Your task to perform on an android device: Open Google Image 0: 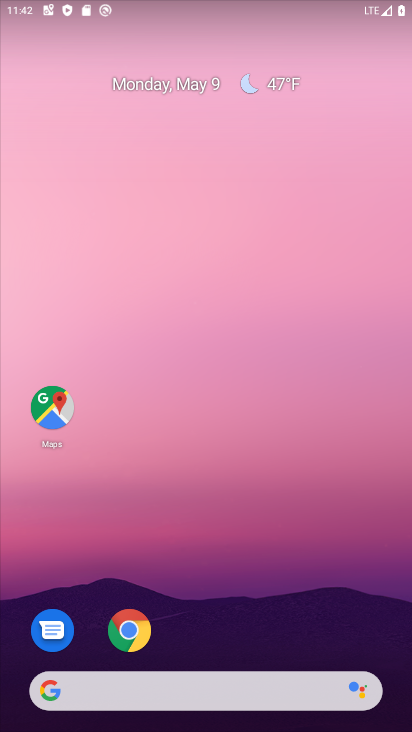
Step 0: drag from (179, 645) to (289, 150)
Your task to perform on an android device: Open Google Image 1: 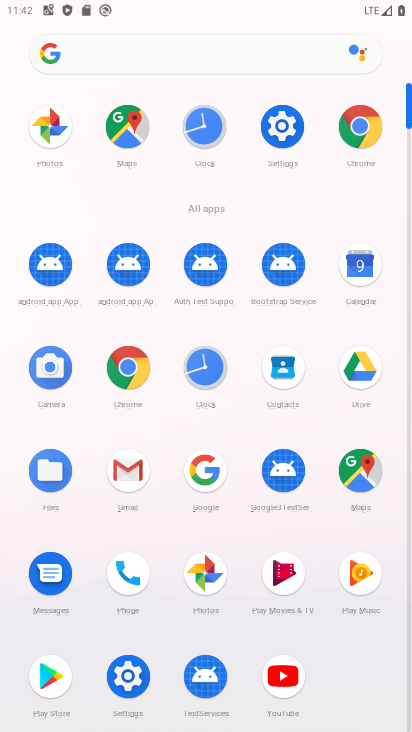
Step 1: click (205, 483)
Your task to perform on an android device: Open Google Image 2: 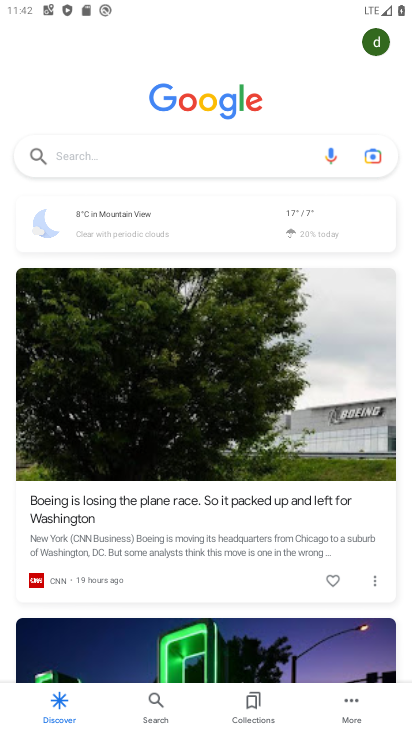
Step 2: task complete